Your task to perform on an android device: find which apps use the phone's location Image 0: 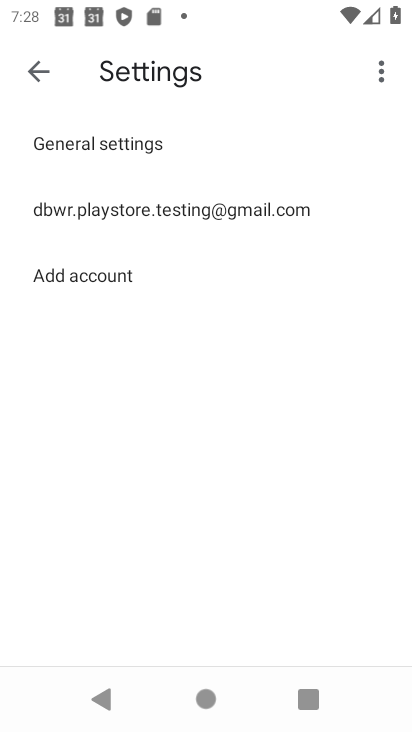
Step 0: press home button
Your task to perform on an android device: find which apps use the phone's location Image 1: 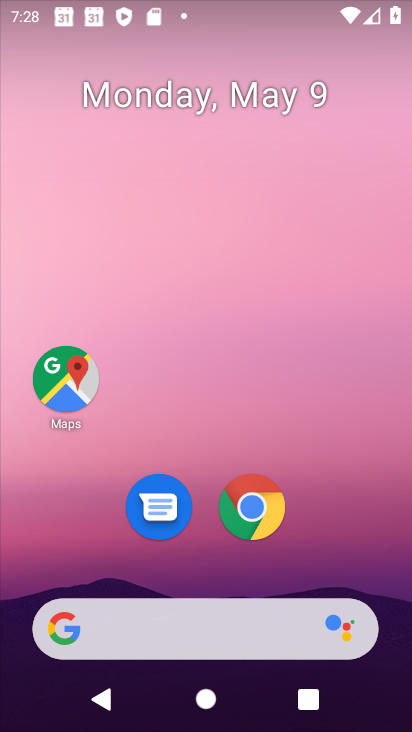
Step 1: drag from (257, 656) to (285, 167)
Your task to perform on an android device: find which apps use the phone's location Image 2: 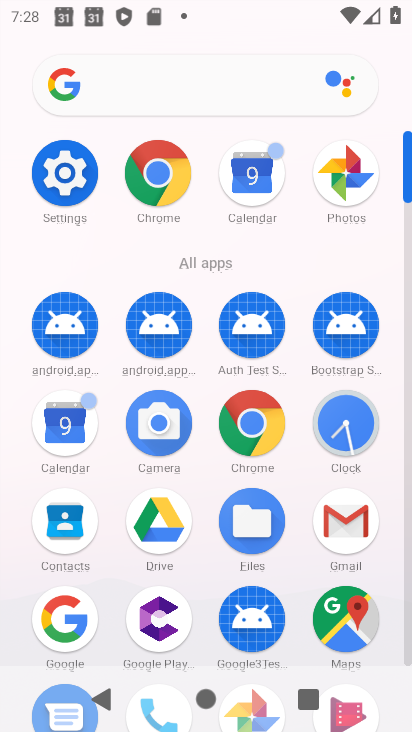
Step 2: click (69, 189)
Your task to perform on an android device: find which apps use the phone's location Image 3: 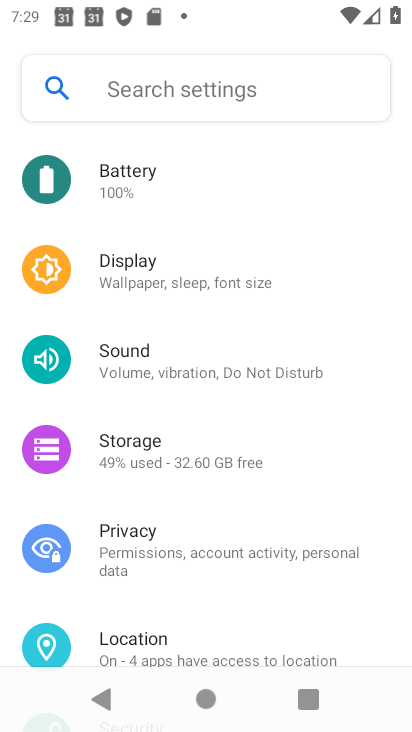
Step 3: click (150, 644)
Your task to perform on an android device: find which apps use the phone's location Image 4: 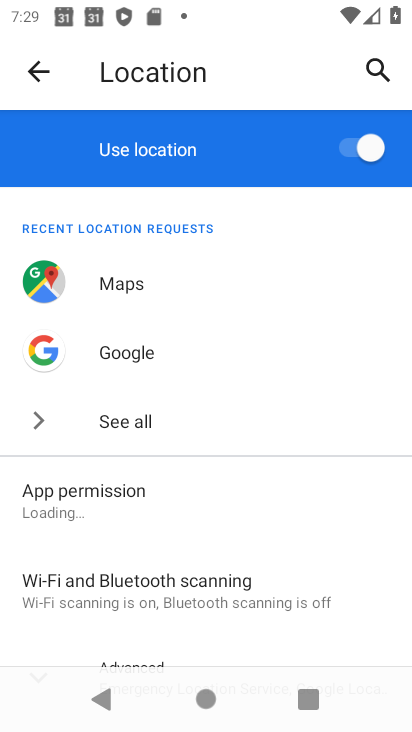
Step 4: click (117, 421)
Your task to perform on an android device: find which apps use the phone's location Image 5: 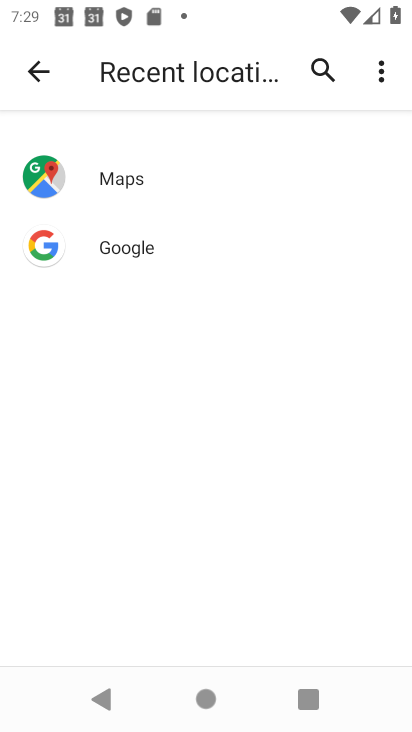
Step 5: task complete